Your task to perform on an android device: Open ESPN.com Image 0: 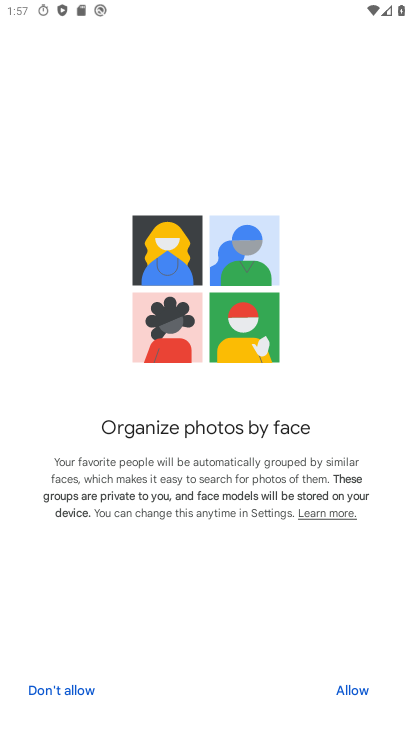
Step 0: click (376, 687)
Your task to perform on an android device: Open ESPN.com Image 1: 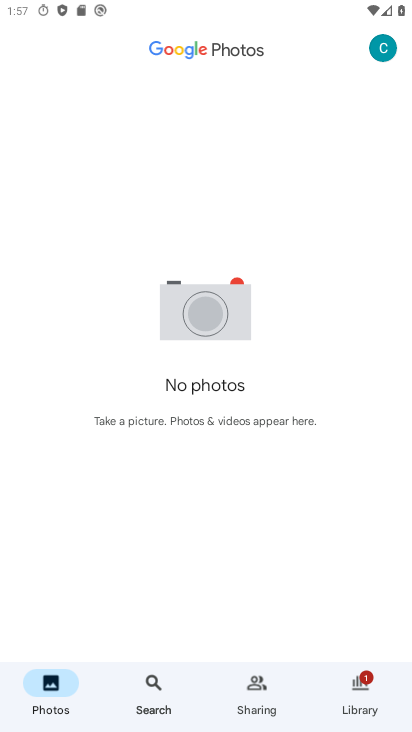
Step 1: click (354, 687)
Your task to perform on an android device: Open ESPN.com Image 2: 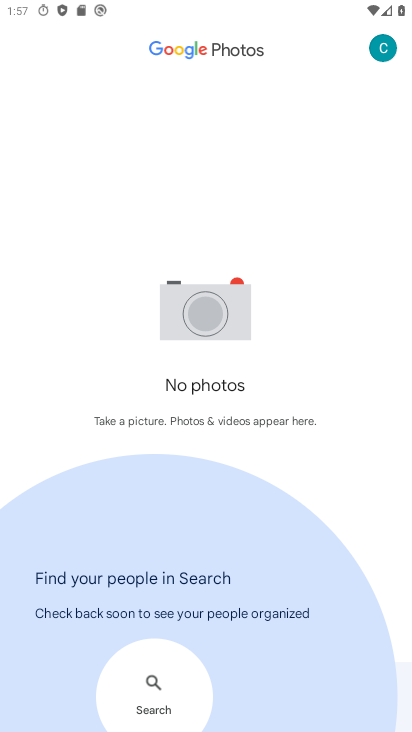
Step 2: drag from (277, 543) to (286, 297)
Your task to perform on an android device: Open ESPN.com Image 3: 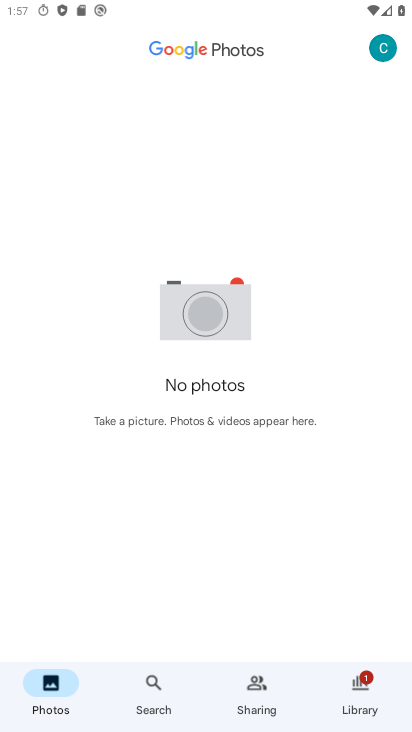
Step 3: press home button
Your task to perform on an android device: Open ESPN.com Image 4: 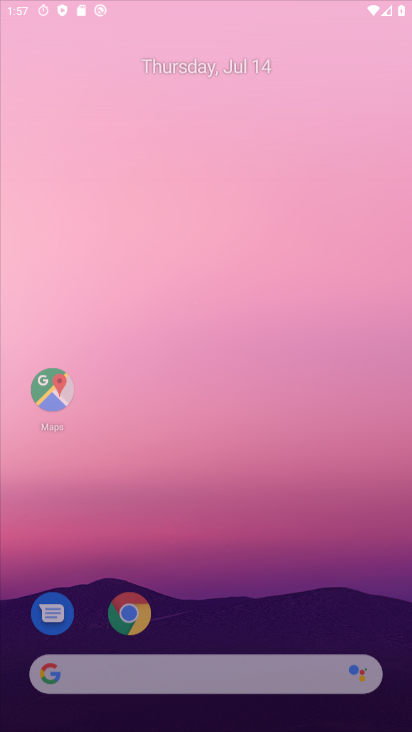
Step 4: drag from (221, 636) to (273, 204)
Your task to perform on an android device: Open ESPN.com Image 5: 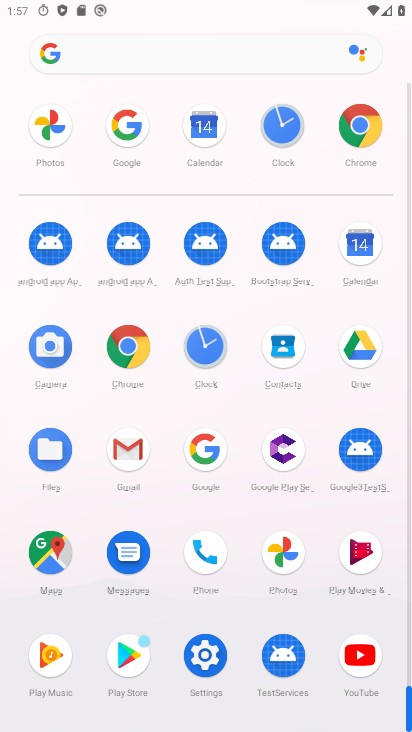
Step 5: click (182, 57)
Your task to perform on an android device: Open ESPN.com Image 6: 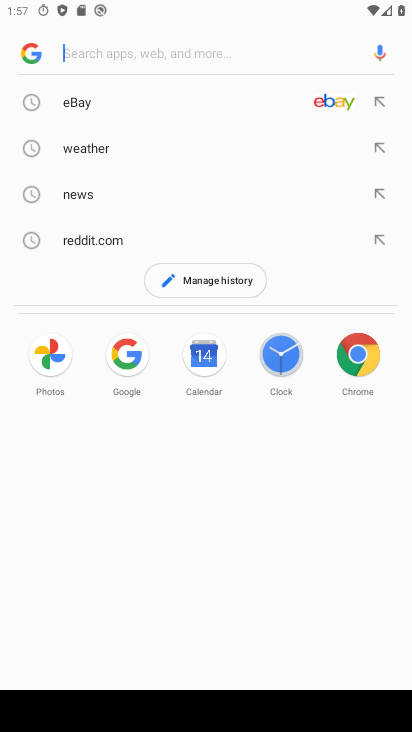
Step 6: type "espn.com"
Your task to perform on an android device: Open ESPN.com Image 7: 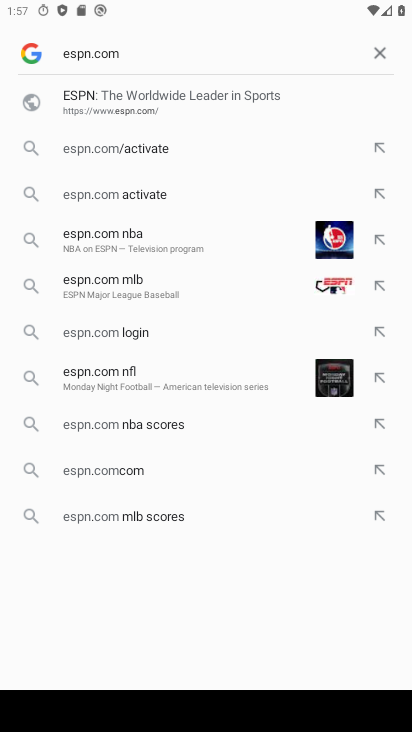
Step 7: click (114, 111)
Your task to perform on an android device: Open ESPN.com Image 8: 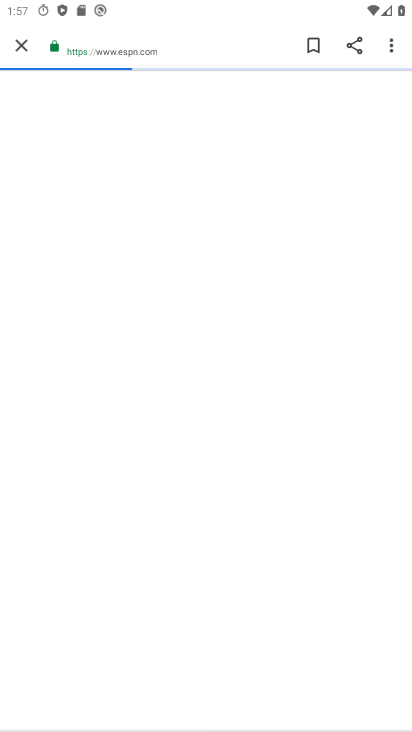
Step 8: task complete